Your task to perform on an android device: Open the phone app and click the voicemail tab. Image 0: 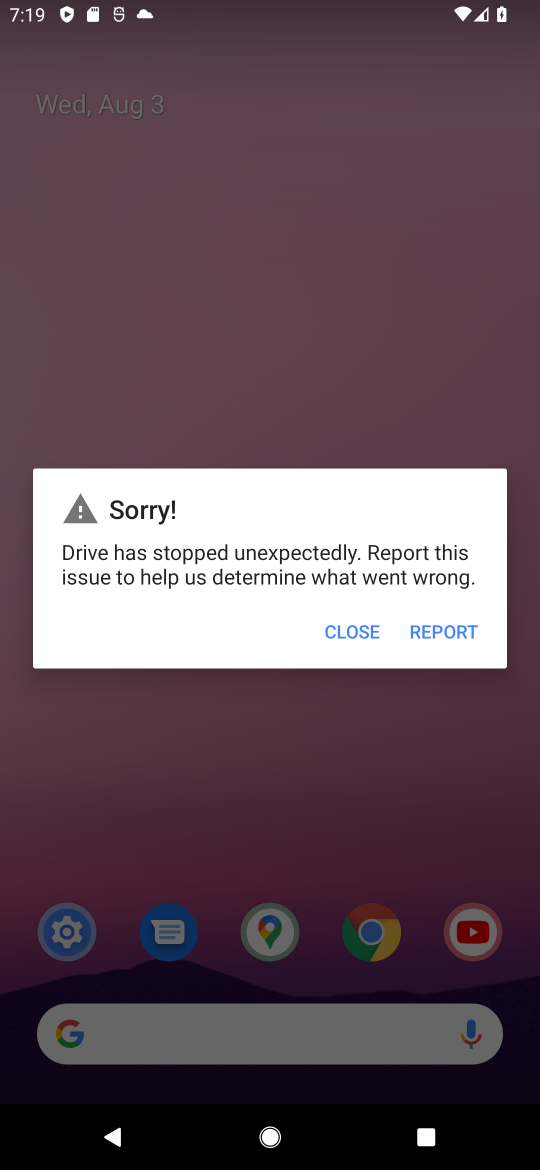
Step 0: press home button
Your task to perform on an android device: Open the phone app and click the voicemail tab. Image 1: 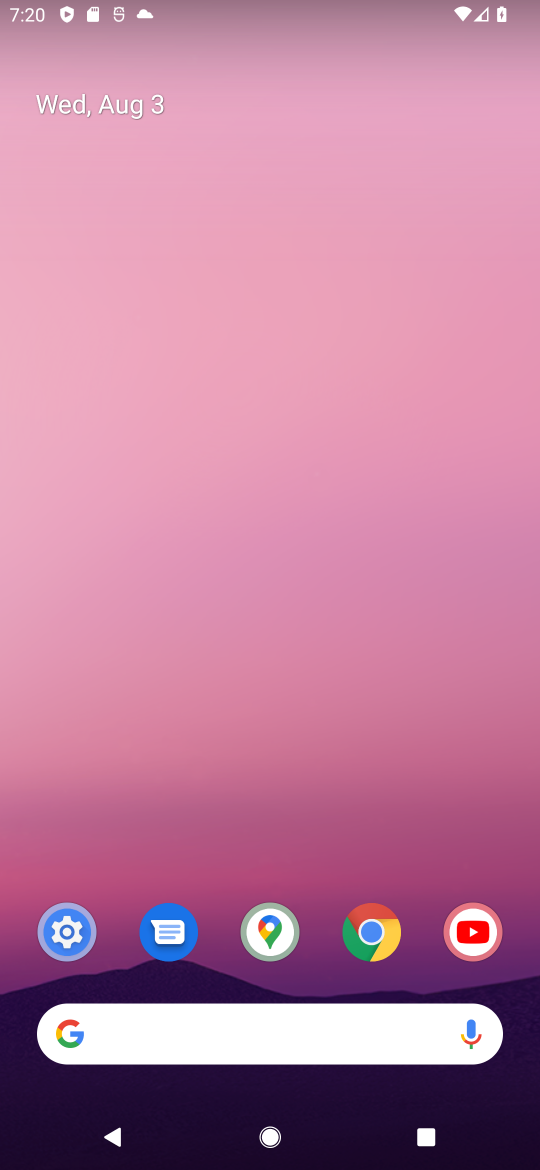
Step 1: drag from (321, 1067) to (301, 1)
Your task to perform on an android device: Open the phone app and click the voicemail tab. Image 2: 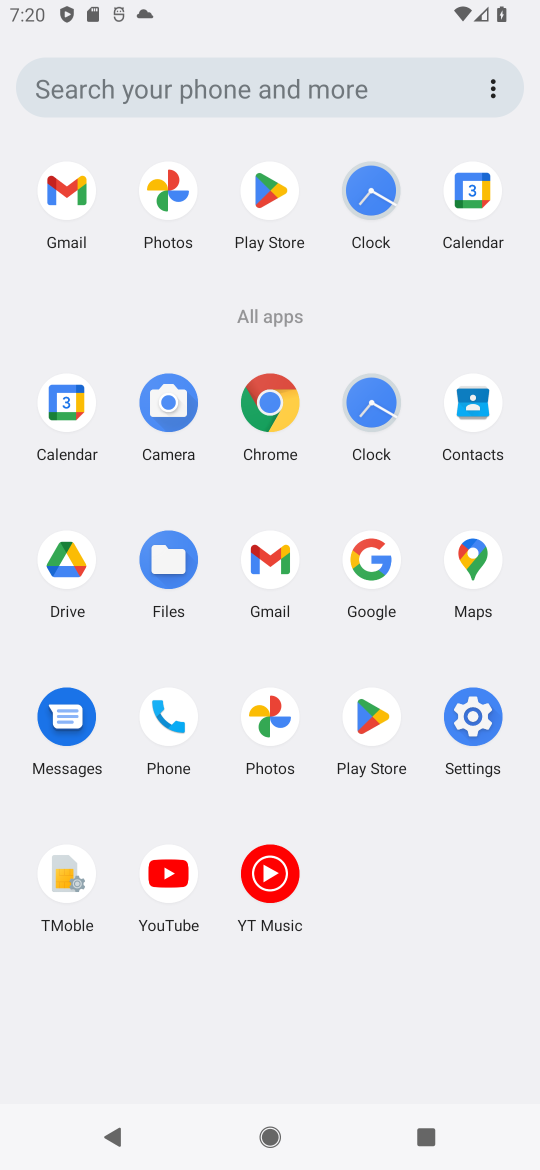
Step 2: click (159, 737)
Your task to perform on an android device: Open the phone app and click the voicemail tab. Image 3: 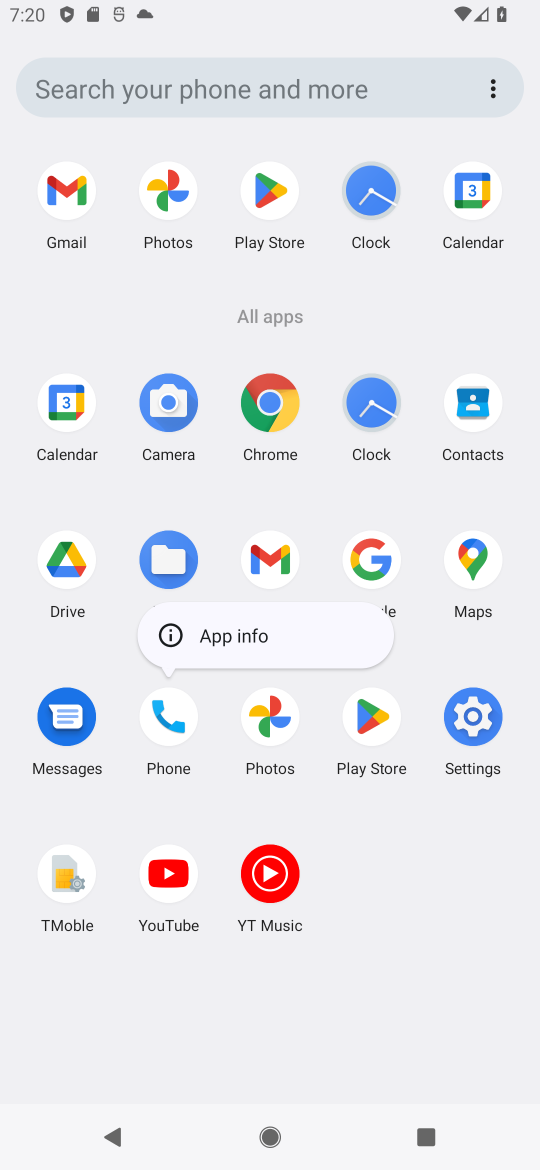
Step 3: click (159, 737)
Your task to perform on an android device: Open the phone app and click the voicemail tab. Image 4: 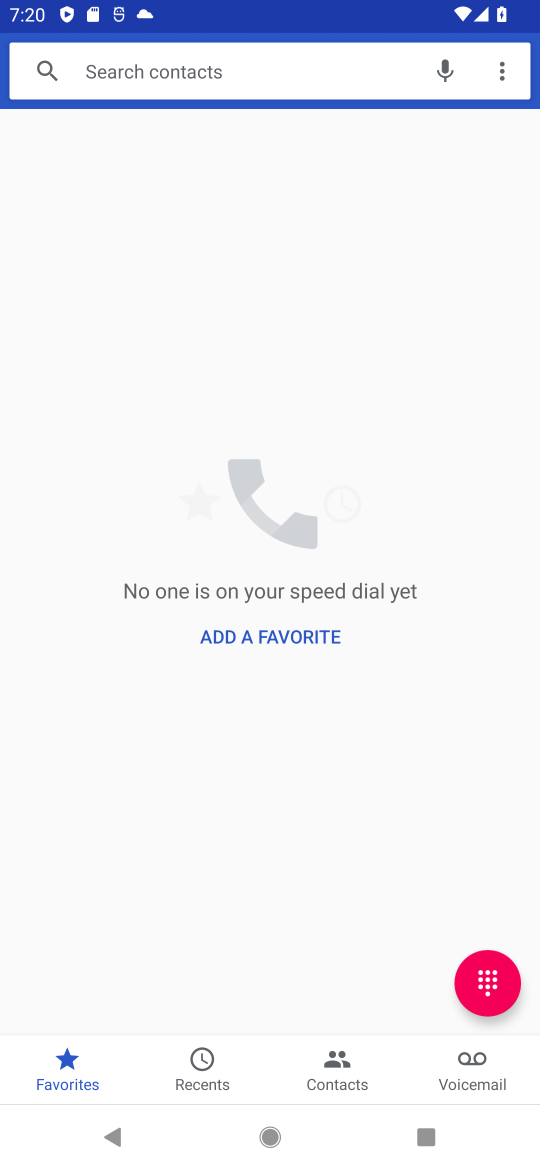
Step 4: click (487, 1096)
Your task to perform on an android device: Open the phone app and click the voicemail tab. Image 5: 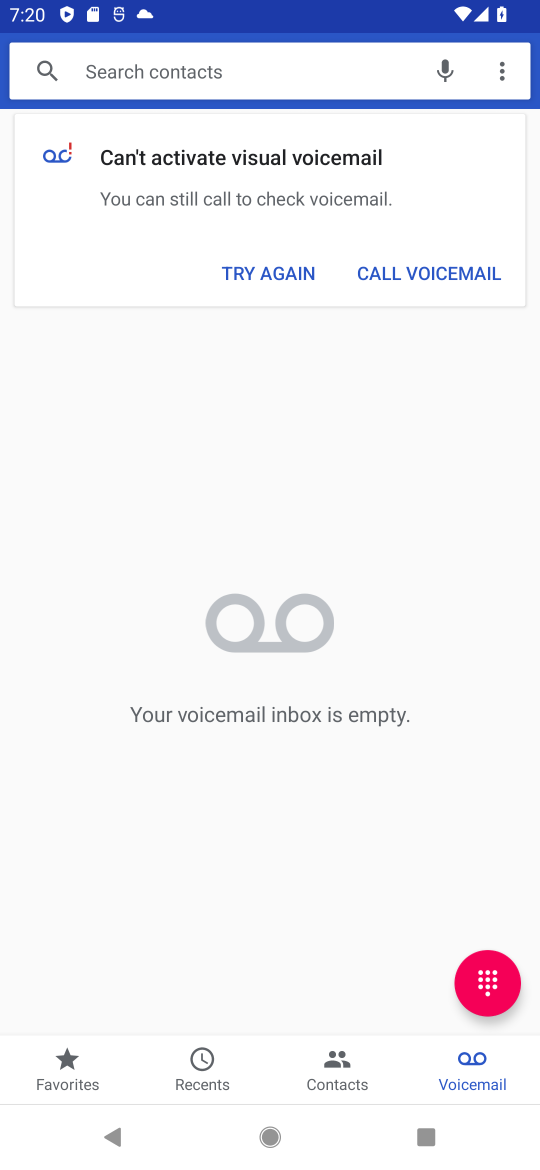
Step 5: task complete